Your task to perform on an android device: turn pop-ups on in chrome Image 0: 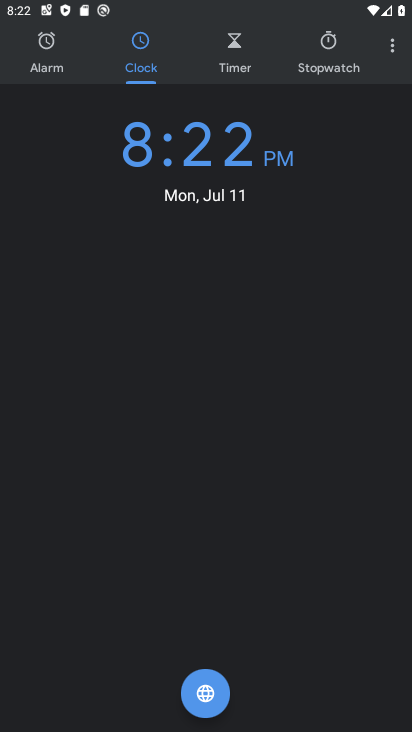
Step 0: drag from (212, 680) to (185, 291)
Your task to perform on an android device: turn pop-ups on in chrome Image 1: 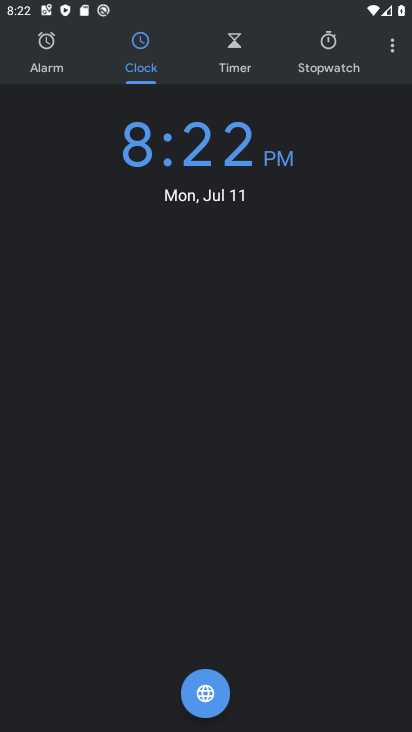
Step 1: press home button
Your task to perform on an android device: turn pop-ups on in chrome Image 2: 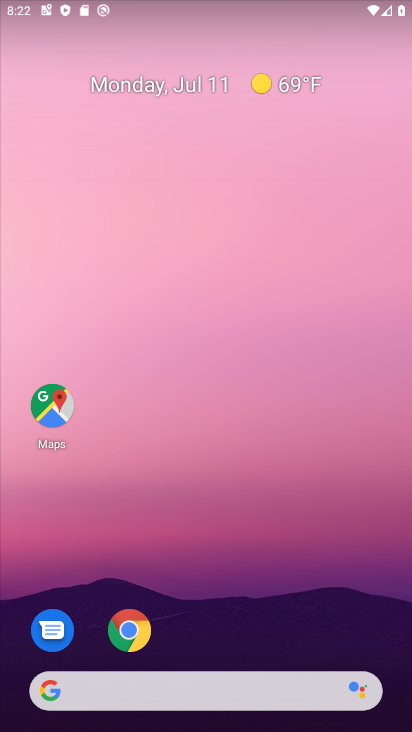
Step 2: click (131, 639)
Your task to perform on an android device: turn pop-ups on in chrome Image 3: 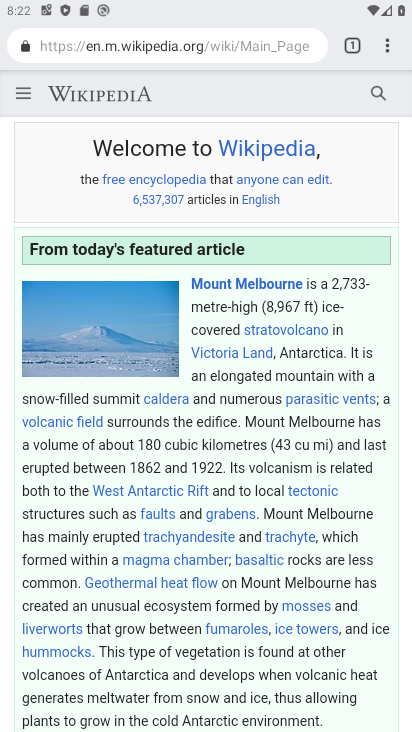
Step 3: drag from (382, 53) to (270, 543)
Your task to perform on an android device: turn pop-ups on in chrome Image 4: 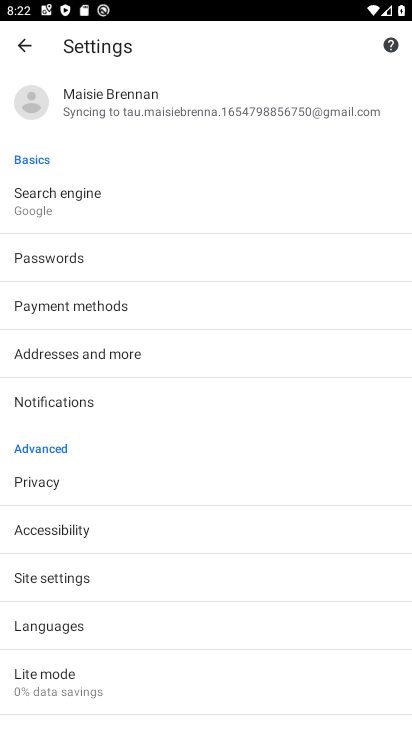
Step 4: click (102, 585)
Your task to perform on an android device: turn pop-ups on in chrome Image 5: 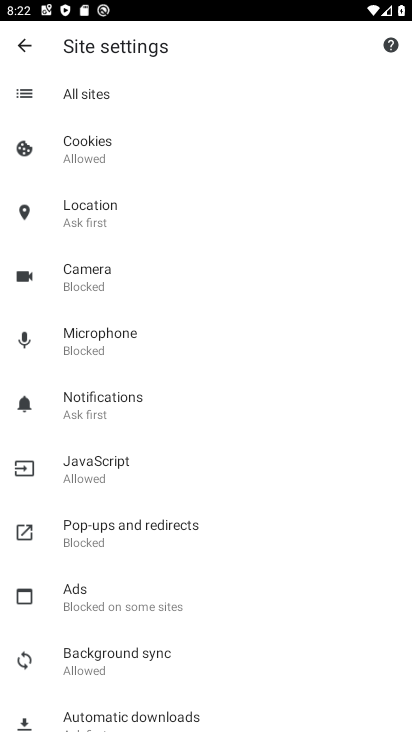
Step 5: click (161, 512)
Your task to perform on an android device: turn pop-ups on in chrome Image 6: 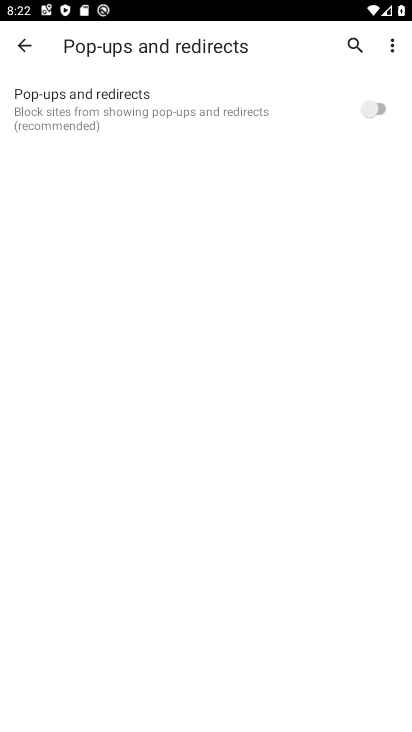
Step 6: click (375, 105)
Your task to perform on an android device: turn pop-ups on in chrome Image 7: 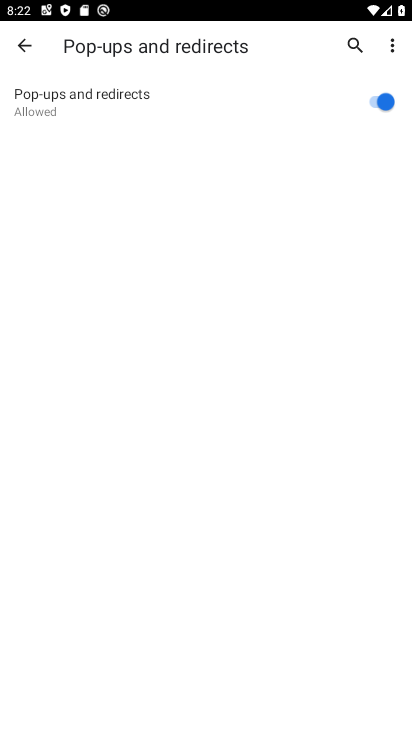
Step 7: task complete